Your task to perform on an android device: open sync settings in chrome Image 0: 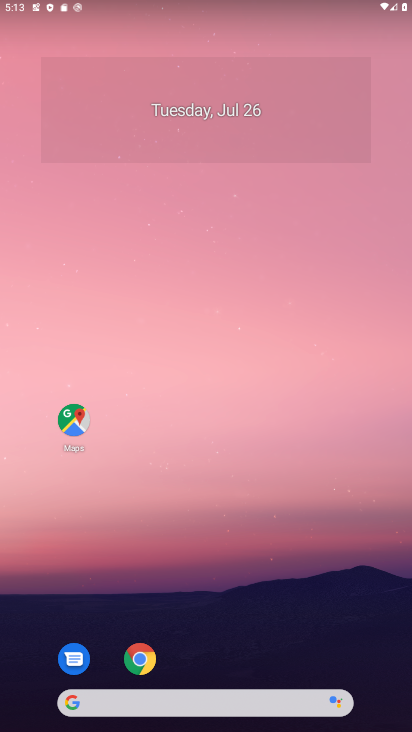
Step 0: drag from (268, 621) to (268, 45)
Your task to perform on an android device: open sync settings in chrome Image 1: 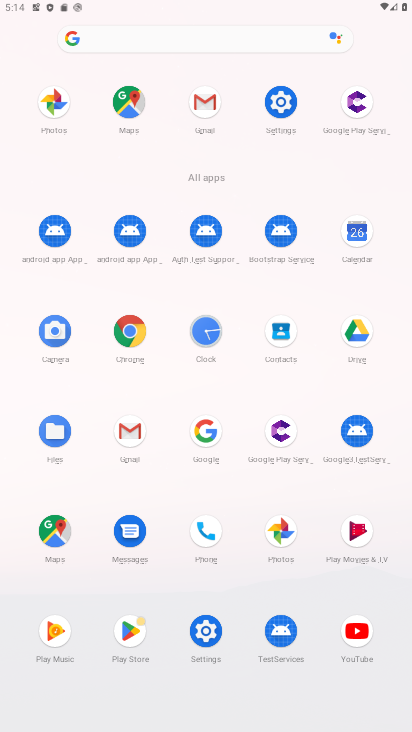
Step 1: click (132, 327)
Your task to perform on an android device: open sync settings in chrome Image 2: 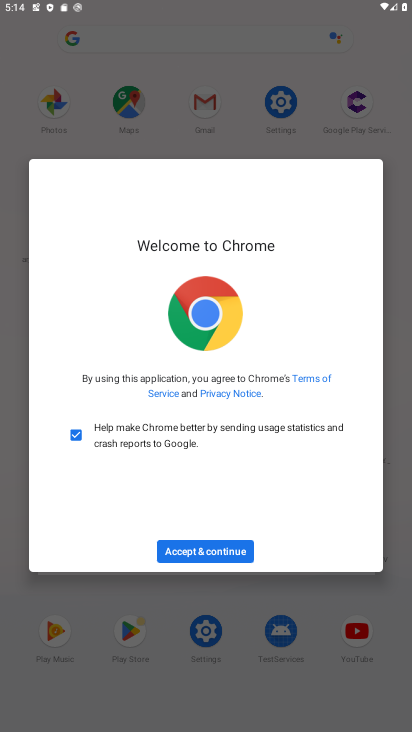
Step 2: click (239, 547)
Your task to perform on an android device: open sync settings in chrome Image 3: 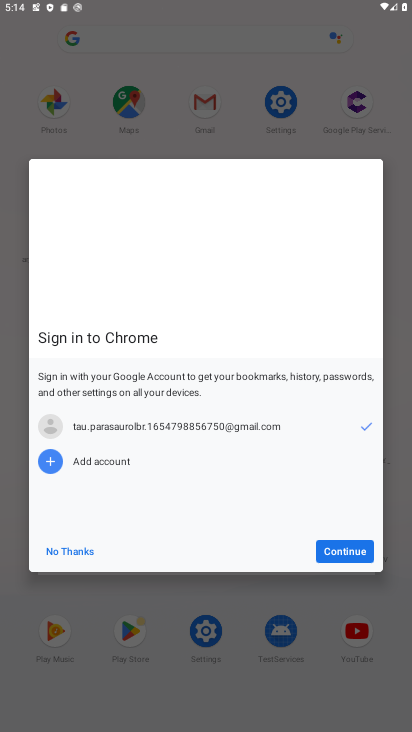
Step 3: click (337, 551)
Your task to perform on an android device: open sync settings in chrome Image 4: 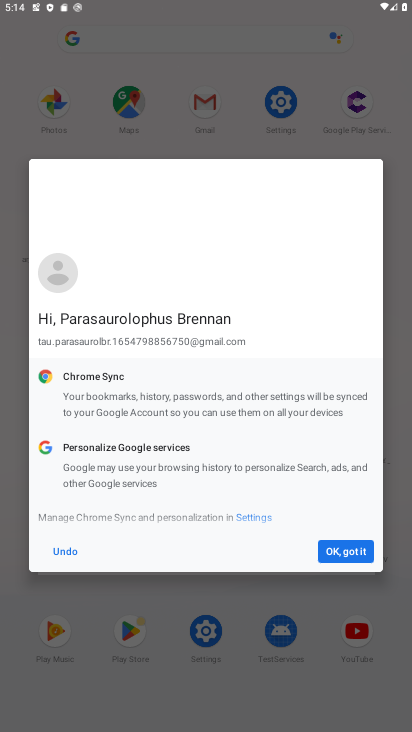
Step 4: click (348, 549)
Your task to perform on an android device: open sync settings in chrome Image 5: 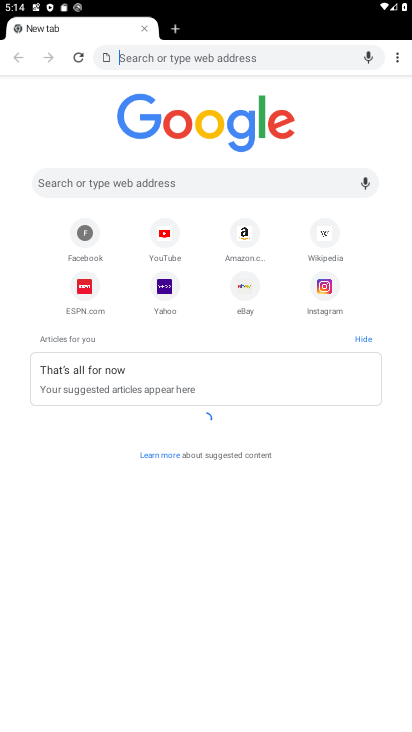
Step 5: click (395, 61)
Your task to perform on an android device: open sync settings in chrome Image 6: 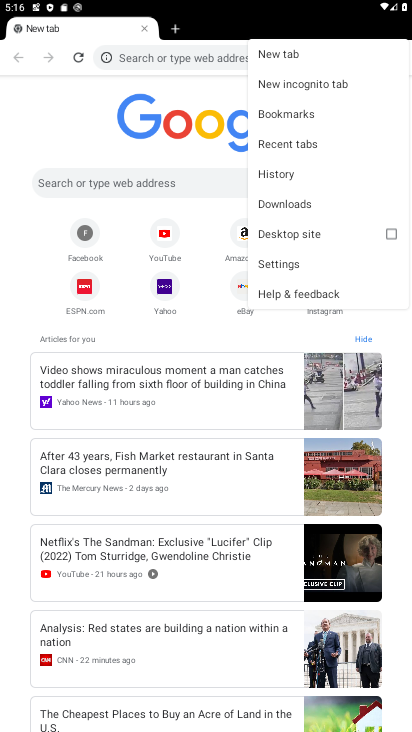
Step 6: click (290, 267)
Your task to perform on an android device: open sync settings in chrome Image 7: 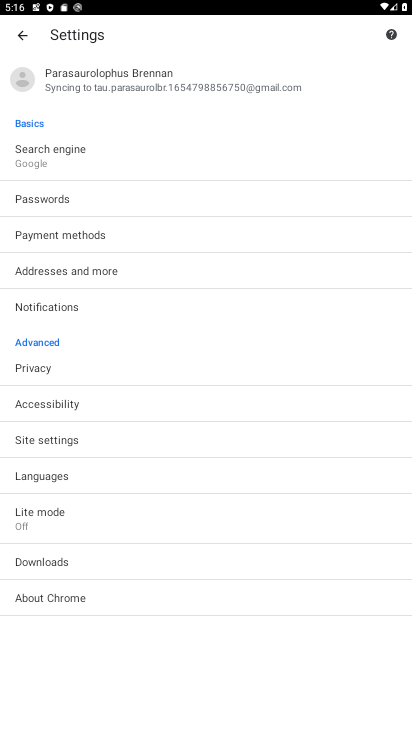
Step 7: task complete